Your task to perform on an android device: Open notification settings Image 0: 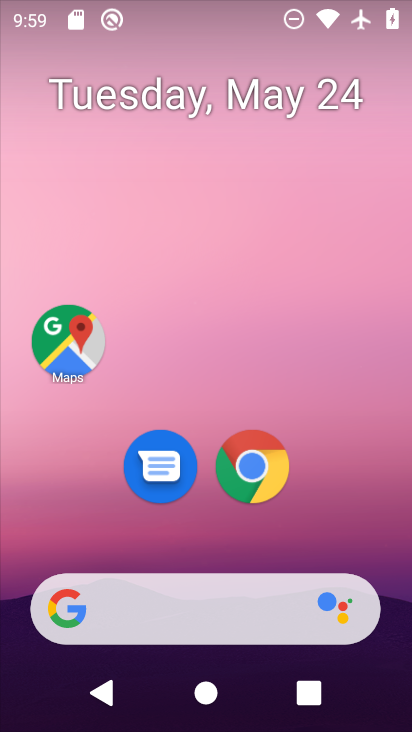
Step 0: drag from (184, 473) to (222, 0)
Your task to perform on an android device: Open notification settings Image 1: 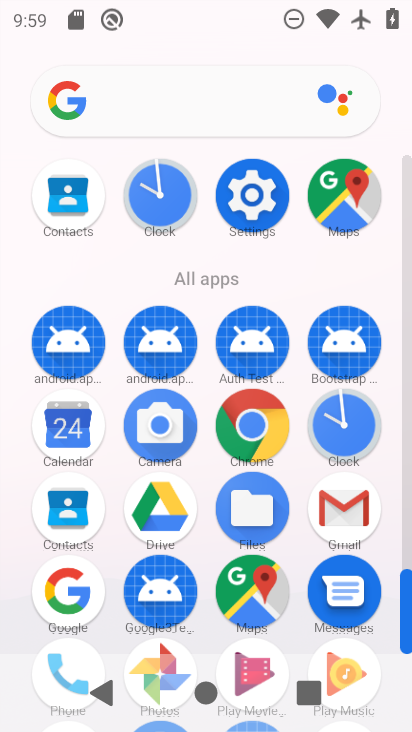
Step 1: click (262, 212)
Your task to perform on an android device: Open notification settings Image 2: 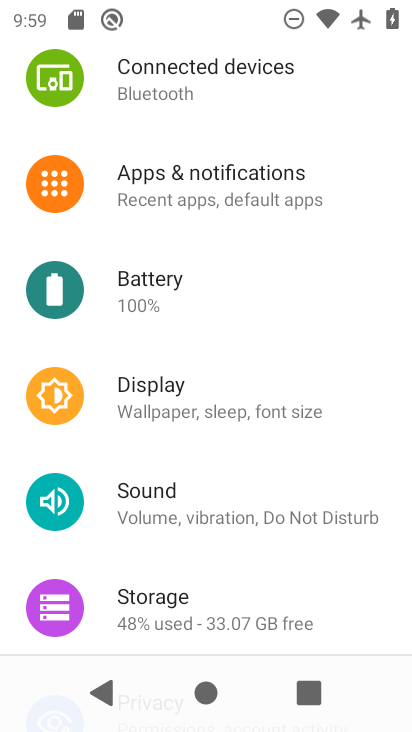
Step 2: click (235, 199)
Your task to perform on an android device: Open notification settings Image 3: 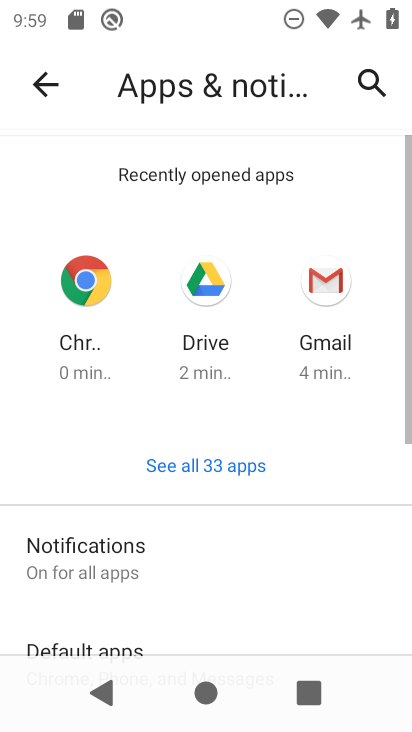
Step 3: drag from (170, 546) to (185, 258)
Your task to perform on an android device: Open notification settings Image 4: 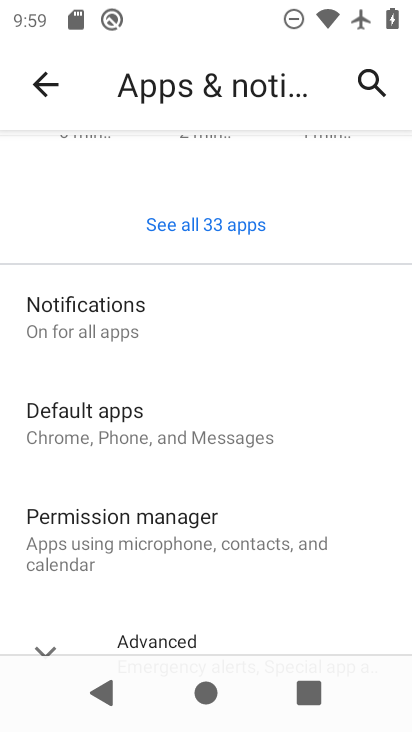
Step 4: click (114, 327)
Your task to perform on an android device: Open notification settings Image 5: 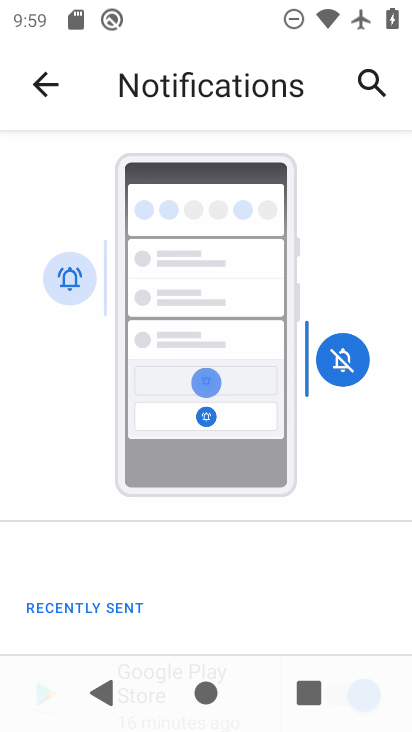
Step 5: task complete